Your task to perform on an android device: Search for Mexican restaurants on Maps Image 0: 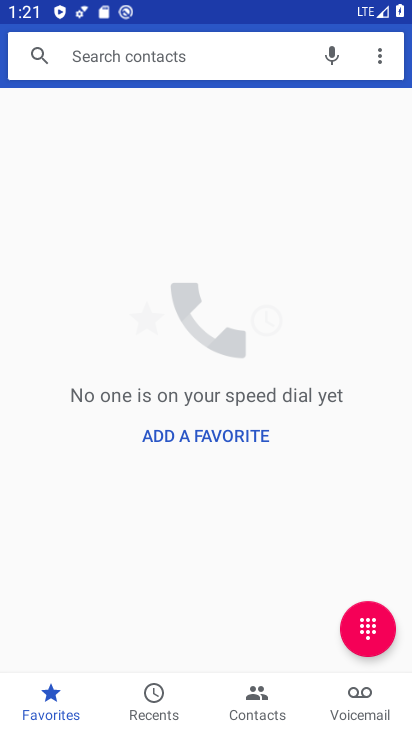
Step 0: press home button
Your task to perform on an android device: Search for Mexican restaurants on Maps Image 1: 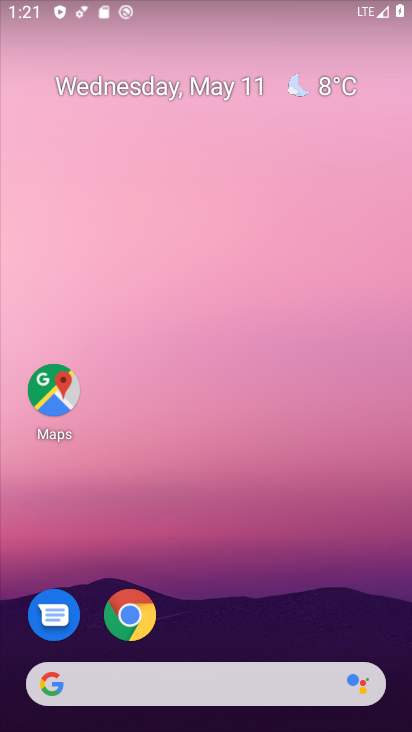
Step 1: drag from (310, 501) to (301, 67)
Your task to perform on an android device: Search for Mexican restaurants on Maps Image 2: 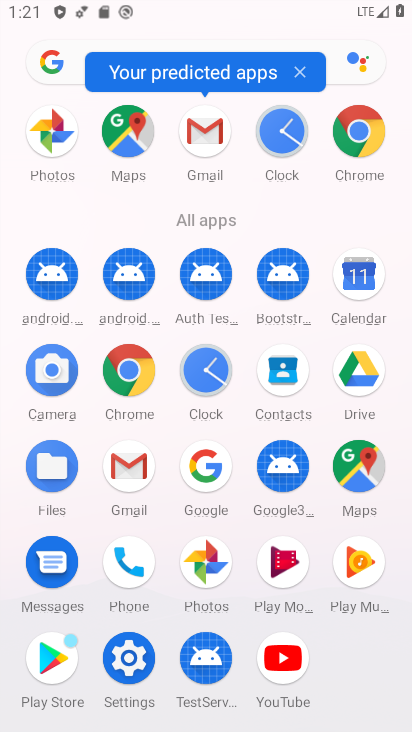
Step 2: click (135, 127)
Your task to perform on an android device: Search for Mexican restaurants on Maps Image 3: 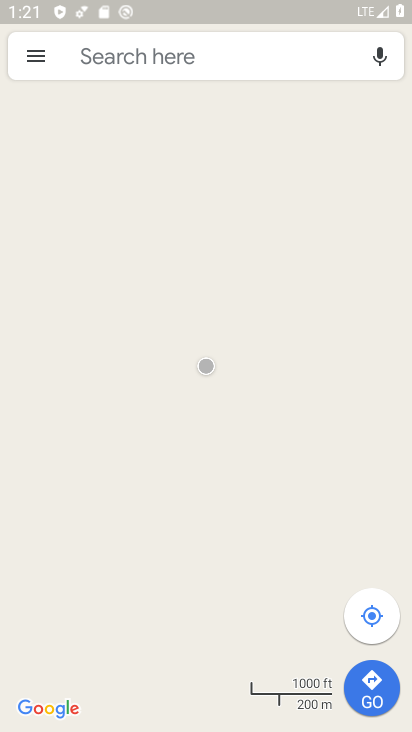
Step 3: click (171, 51)
Your task to perform on an android device: Search for Mexican restaurants on Maps Image 4: 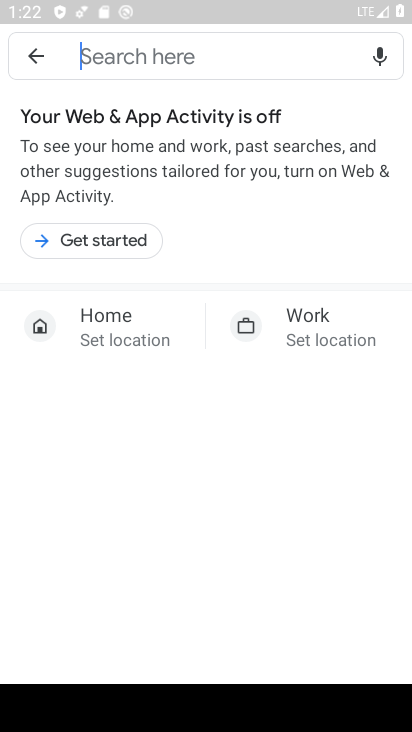
Step 4: type "Mexican restaurants"
Your task to perform on an android device: Search for Mexican restaurants on Maps Image 5: 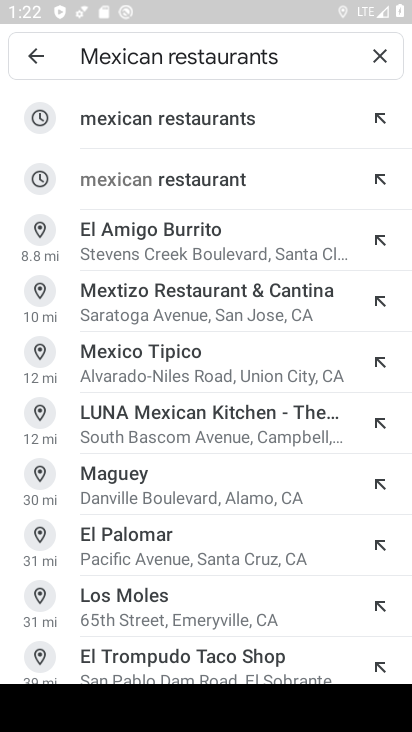
Step 5: click (221, 116)
Your task to perform on an android device: Search for Mexican restaurants on Maps Image 6: 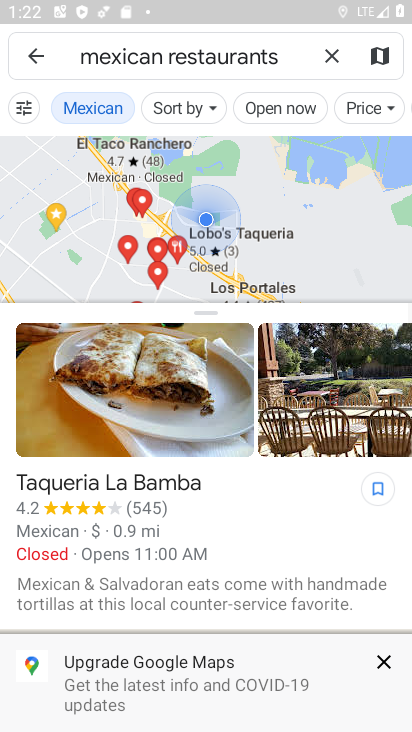
Step 6: task complete